Your task to perform on an android device: Open the Play Movies app and select the watchlist tab. Image 0: 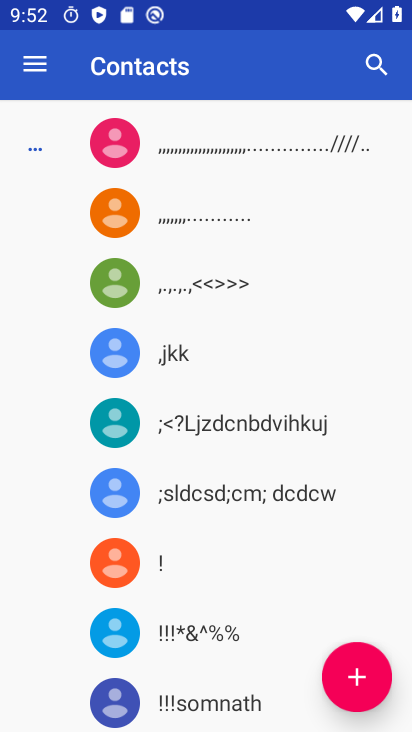
Step 0: press home button
Your task to perform on an android device: Open the Play Movies app and select the watchlist tab. Image 1: 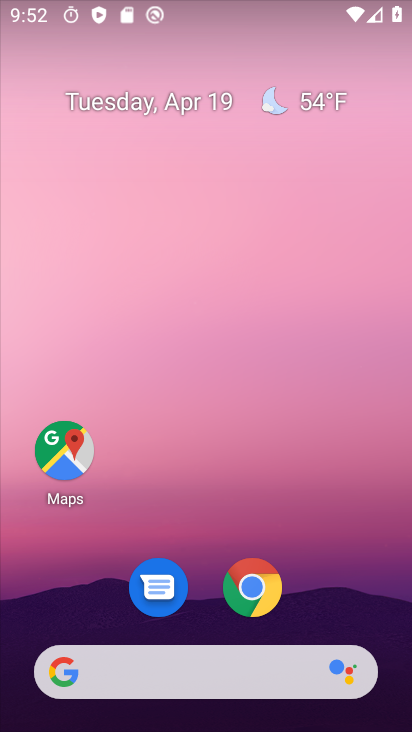
Step 1: drag from (353, 416) to (352, 54)
Your task to perform on an android device: Open the Play Movies app and select the watchlist tab. Image 2: 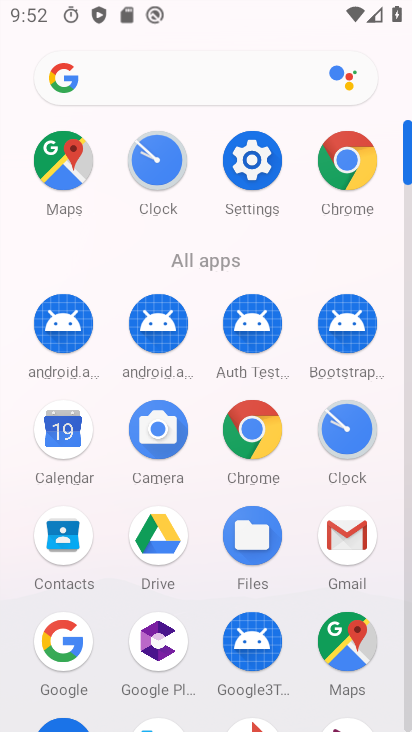
Step 2: drag from (392, 586) to (373, 298)
Your task to perform on an android device: Open the Play Movies app and select the watchlist tab. Image 3: 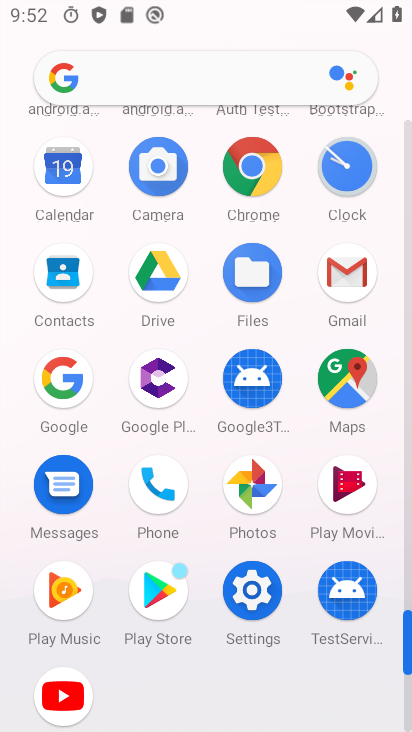
Step 3: click (363, 493)
Your task to perform on an android device: Open the Play Movies app and select the watchlist tab. Image 4: 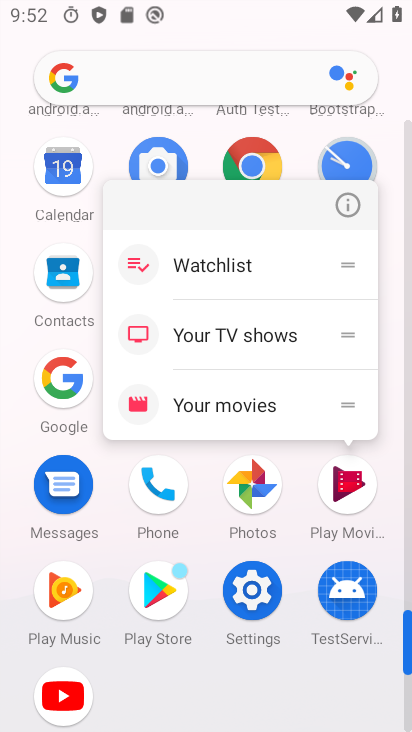
Step 4: click (363, 491)
Your task to perform on an android device: Open the Play Movies app and select the watchlist tab. Image 5: 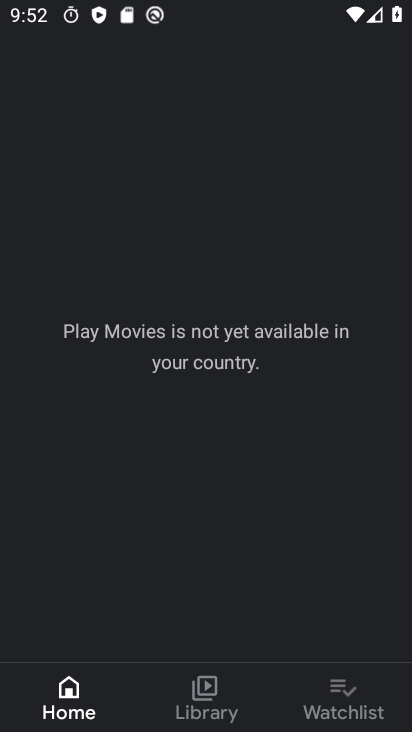
Step 5: click (328, 676)
Your task to perform on an android device: Open the Play Movies app and select the watchlist tab. Image 6: 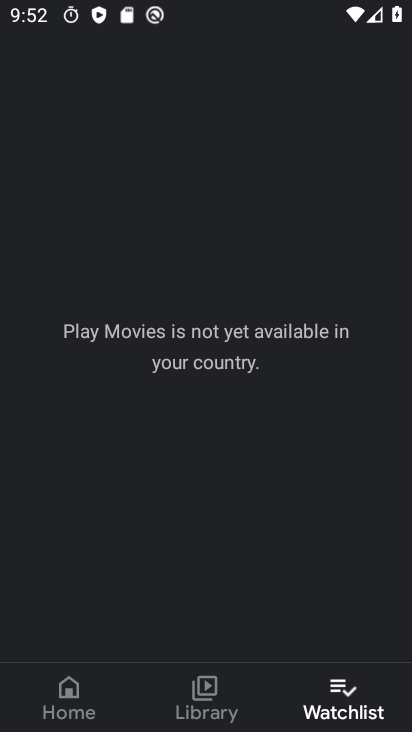
Step 6: task complete